Your task to perform on an android device: When is my next appointment? Image 0: 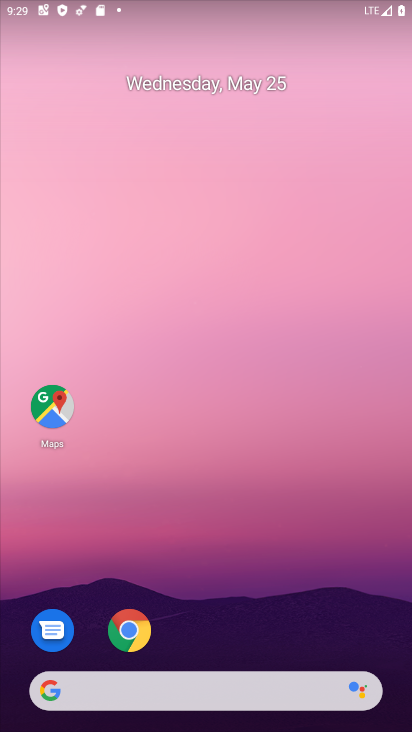
Step 0: drag from (207, 588) to (292, 75)
Your task to perform on an android device: When is my next appointment? Image 1: 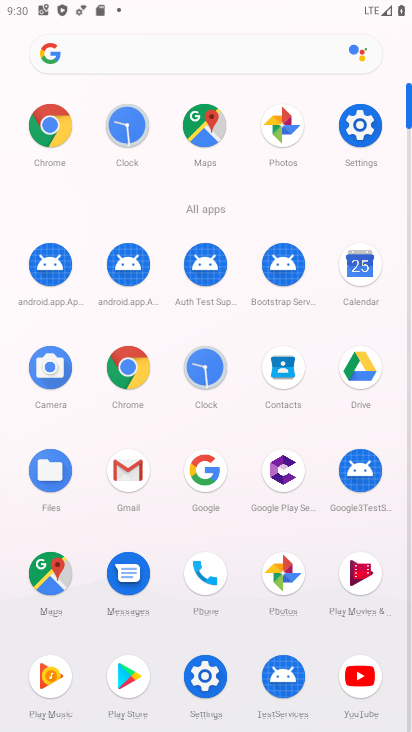
Step 1: click (359, 263)
Your task to perform on an android device: When is my next appointment? Image 2: 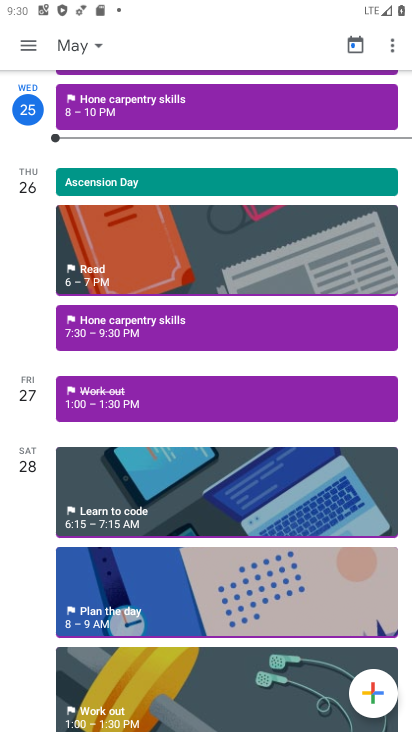
Step 2: task complete